Your task to perform on an android device: install app "Indeed Job Search" Image 0: 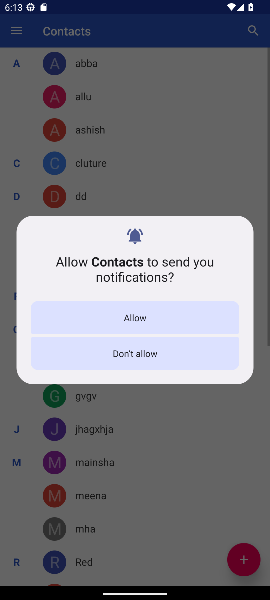
Step 0: press back button
Your task to perform on an android device: install app "Indeed Job Search" Image 1: 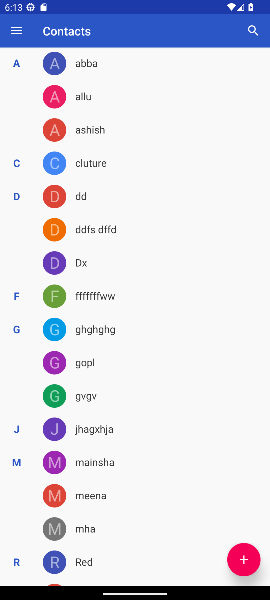
Step 1: press home button
Your task to perform on an android device: install app "Indeed Job Search" Image 2: 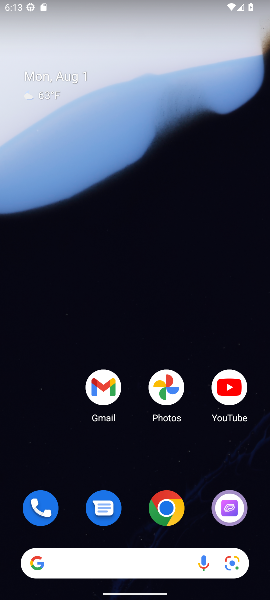
Step 2: drag from (149, 539) to (239, 385)
Your task to perform on an android device: install app "Indeed Job Search" Image 3: 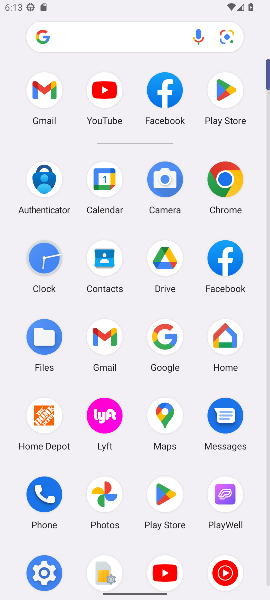
Step 3: click (156, 497)
Your task to perform on an android device: install app "Indeed Job Search" Image 4: 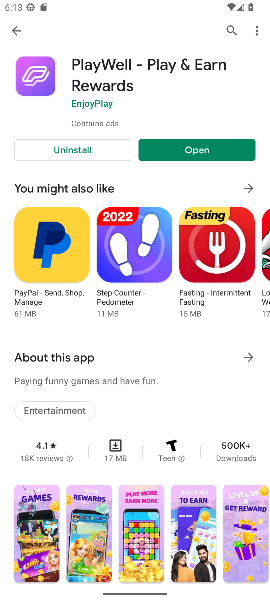
Step 4: click (12, 28)
Your task to perform on an android device: install app "Indeed Job Search" Image 5: 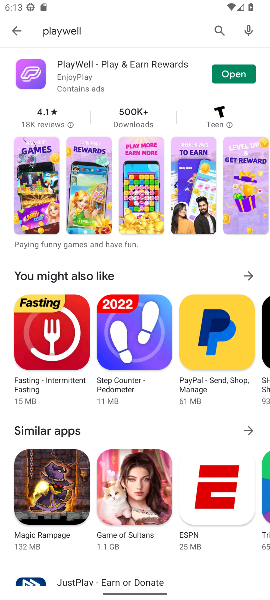
Step 5: click (214, 34)
Your task to perform on an android device: install app "Indeed Job Search" Image 6: 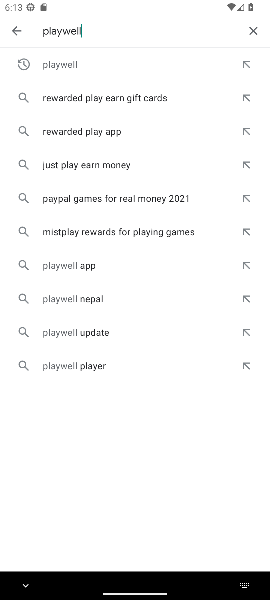
Step 6: click (259, 28)
Your task to perform on an android device: install app "Indeed Job Search" Image 7: 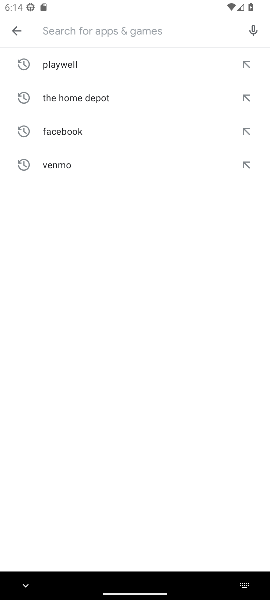
Step 7: type "ndeed Job Search"
Your task to perform on an android device: install app "Indeed Job Search" Image 8: 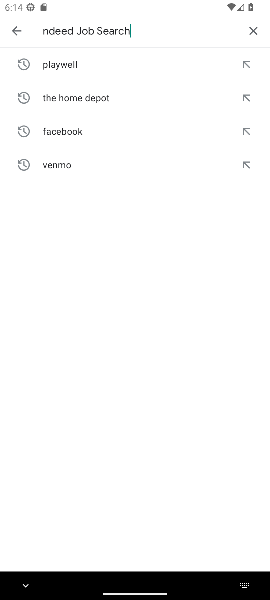
Step 8: type ""
Your task to perform on an android device: install app "Indeed Job Search" Image 9: 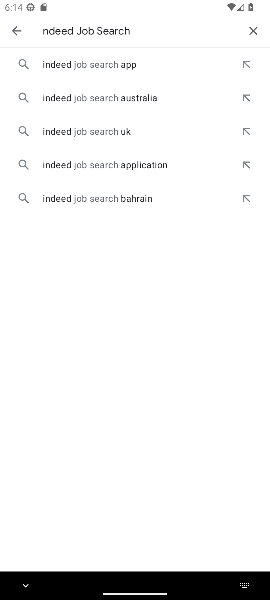
Step 9: click (67, 63)
Your task to perform on an android device: install app "Indeed Job Search" Image 10: 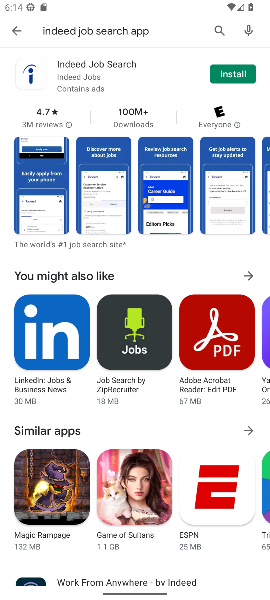
Step 10: click (229, 74)
Your task to perform on an android device: install app "Indeed Job Search" Image 11: 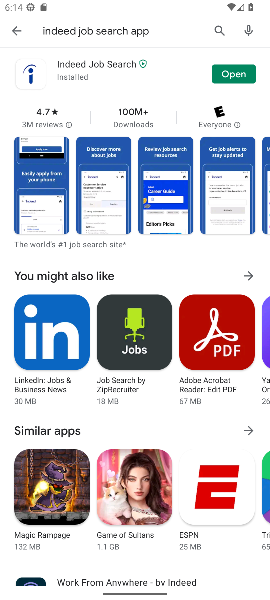
Step 11: task complete